Your task to perform on an android device: Open Google Image 0: 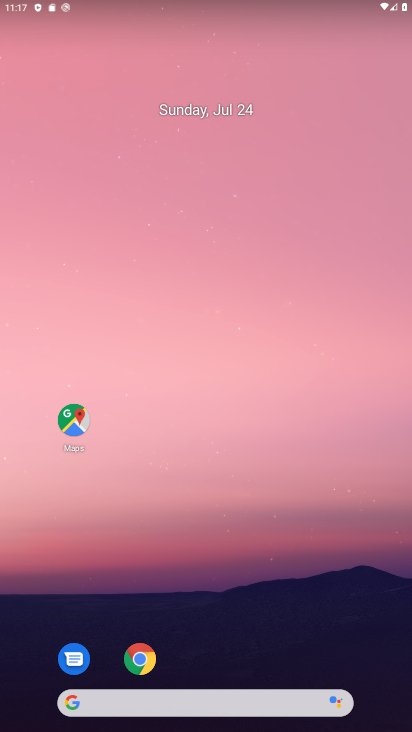
Step 0: click (147, 706)
Your task to perform on an android device: Open Google Image 1: 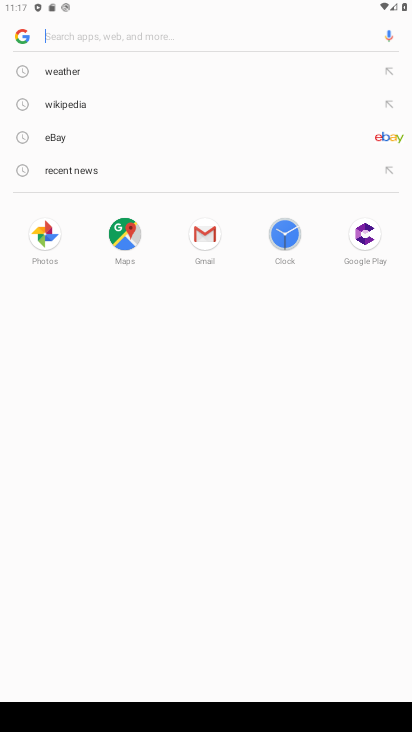
Step 1: task complete